Your task to perform on an android device: Do I have any events tomorrow? Image 0: 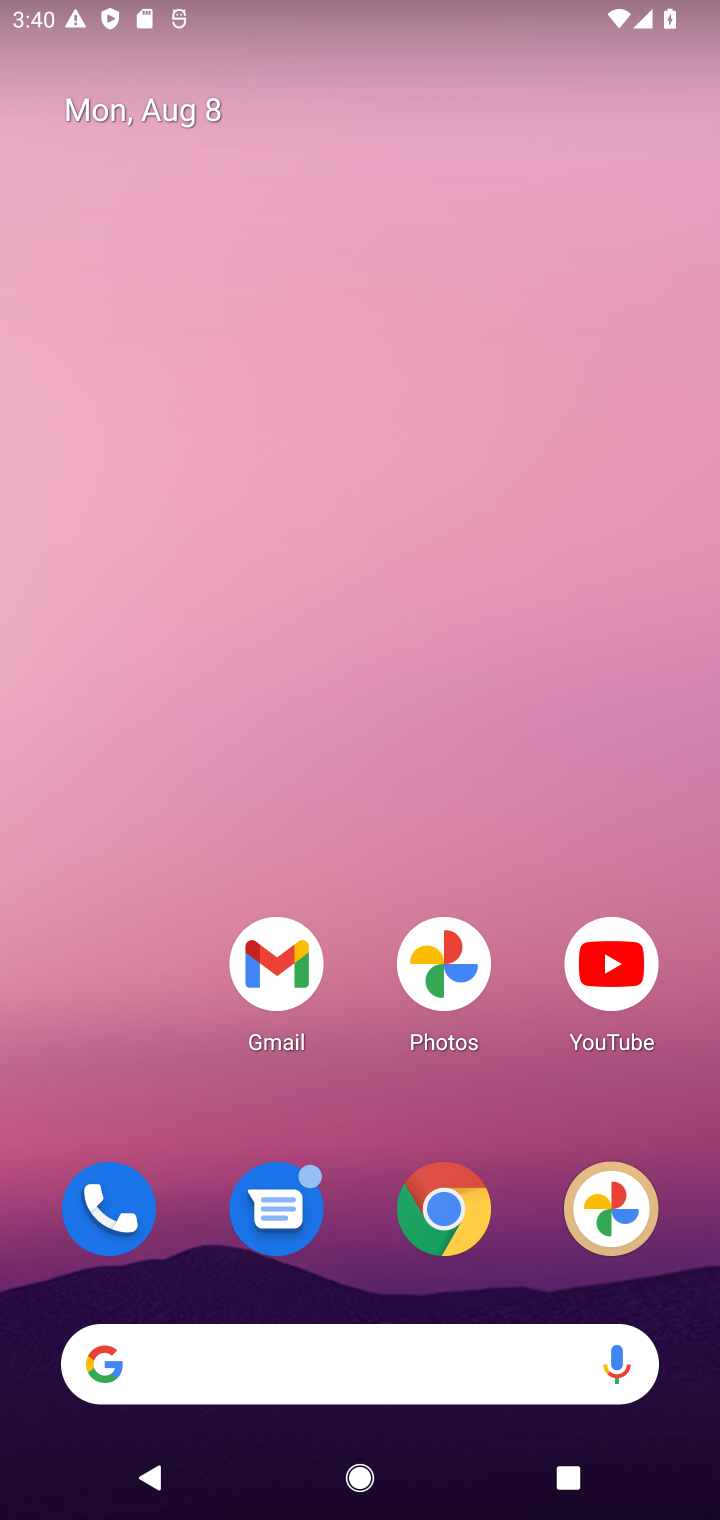
Step 0: drag from (549, 732) to (529, 311)
Your task to perform on an android device: Do I have any events tomorrow? Image 1: 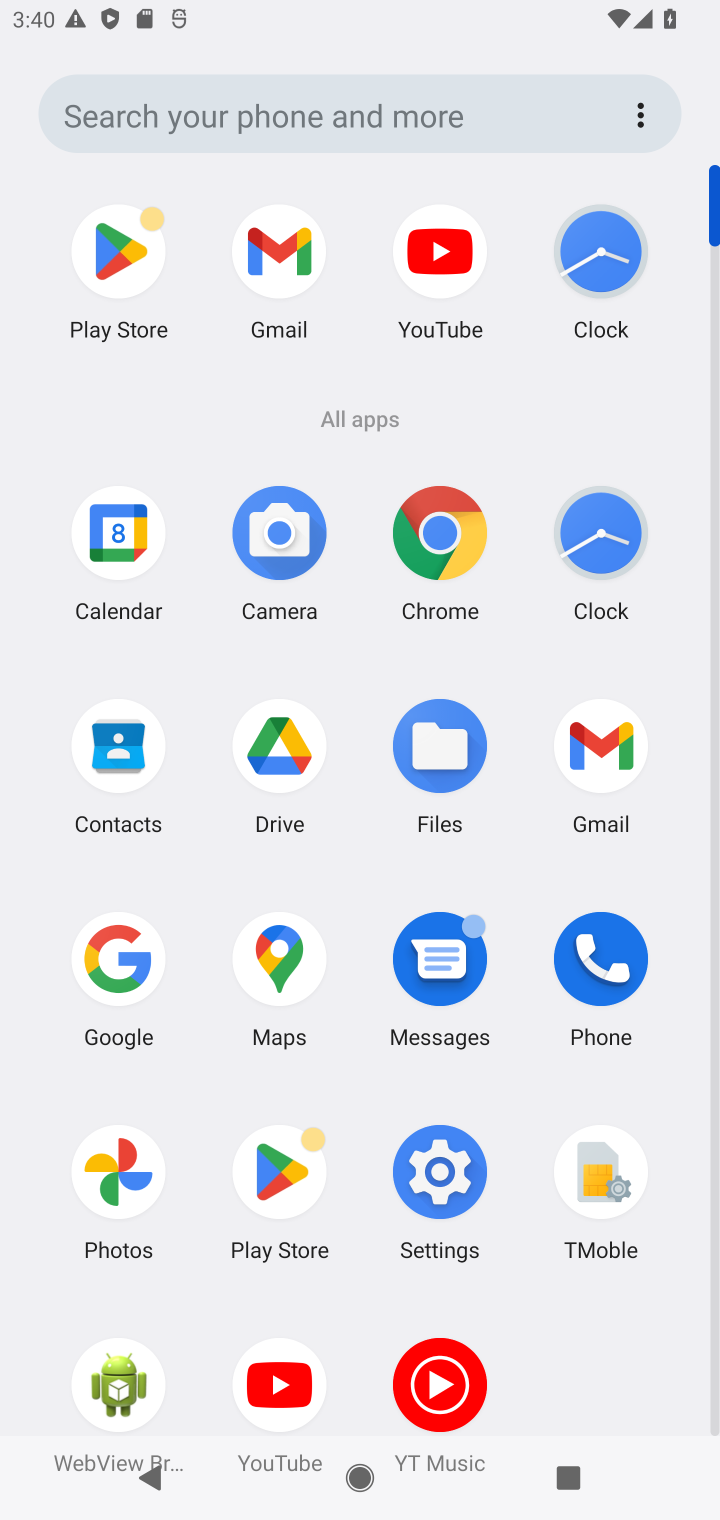
Step 1: click (147, 522)
Your task to perform on an android device: Do I have any events tomorrow? Image 2: 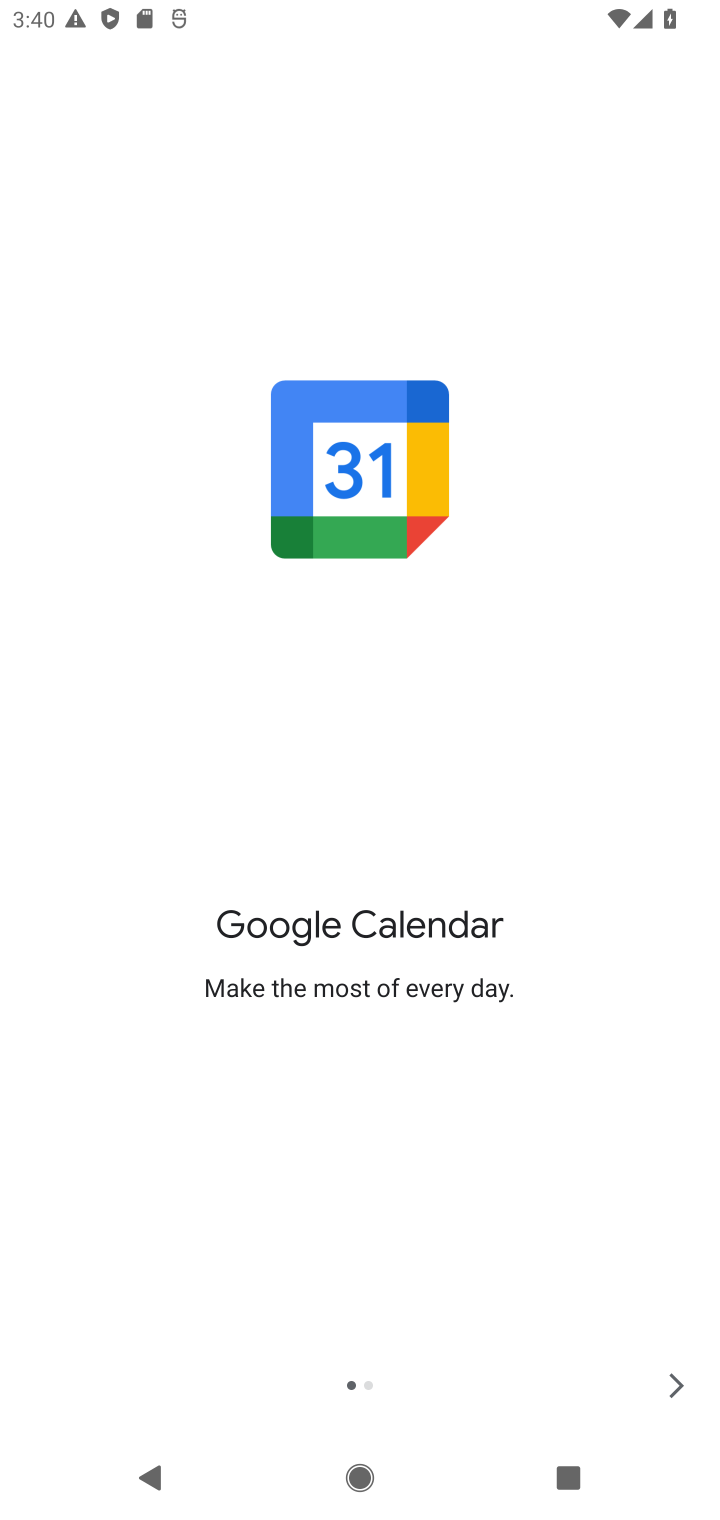
Step 2: click (687, 1385)
Your task to perform on an android device: Do I have any events tomorrow? Image 3: 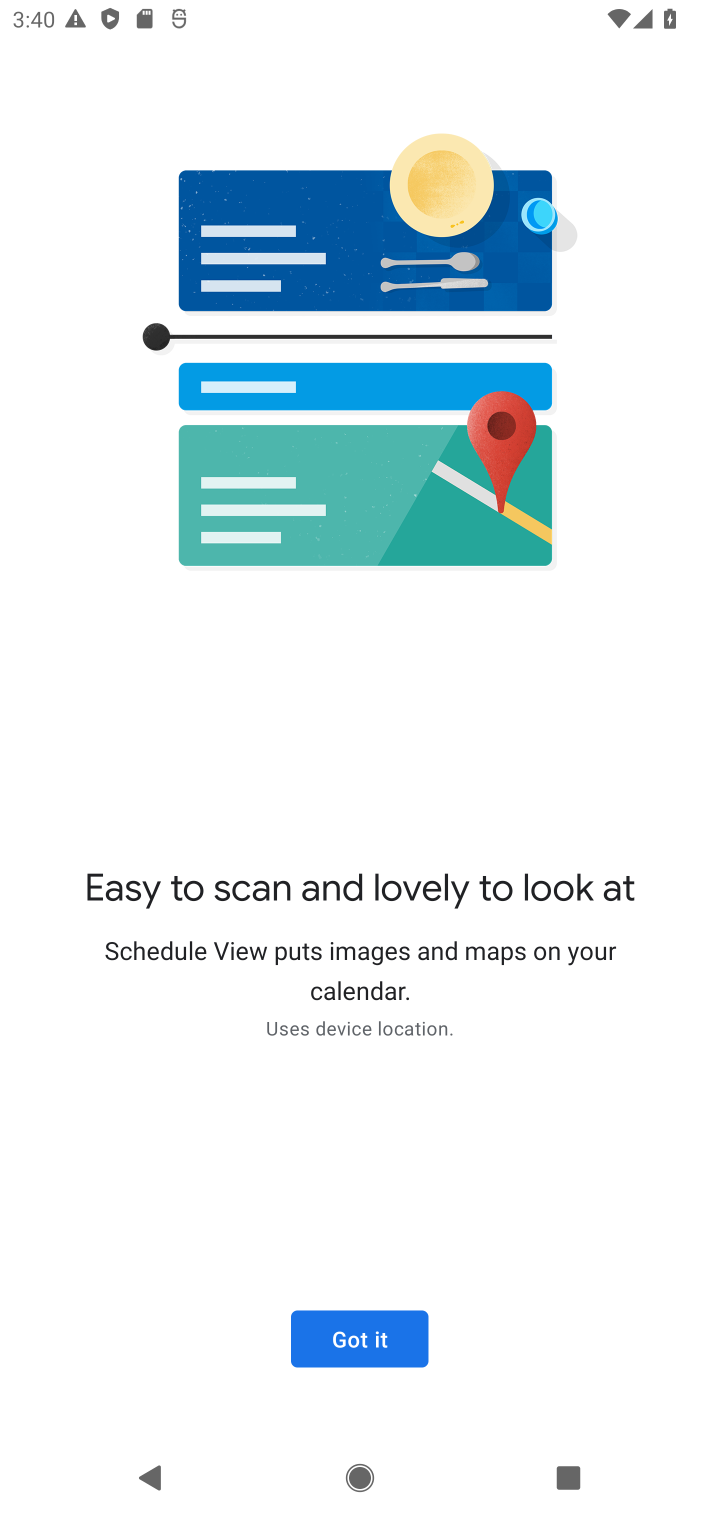
Step 3: click (339, 1347)
Your task to perform on an android device: Do I have any events tomorrow? Image 4: 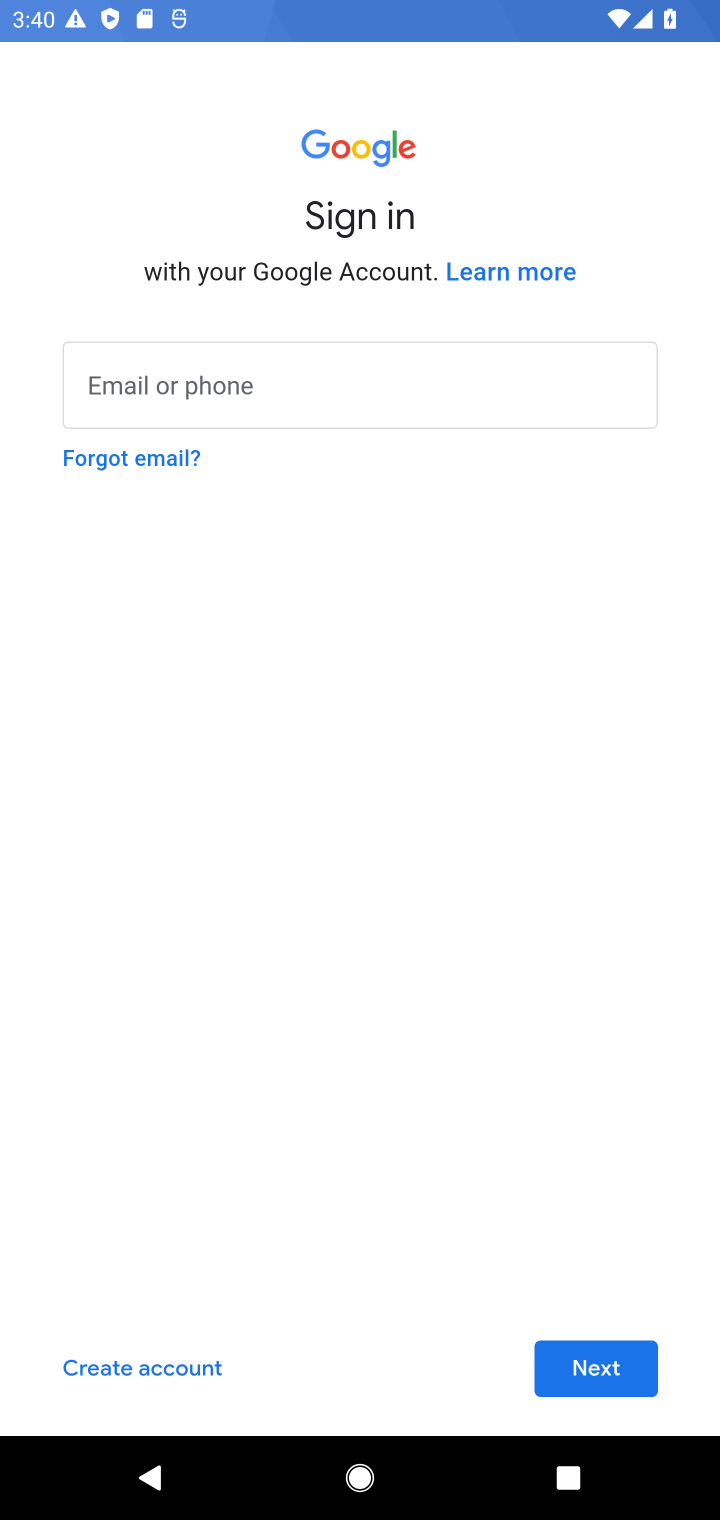
Step 4: task complete